Your task to perform on an android device: Go to Google Image 0: 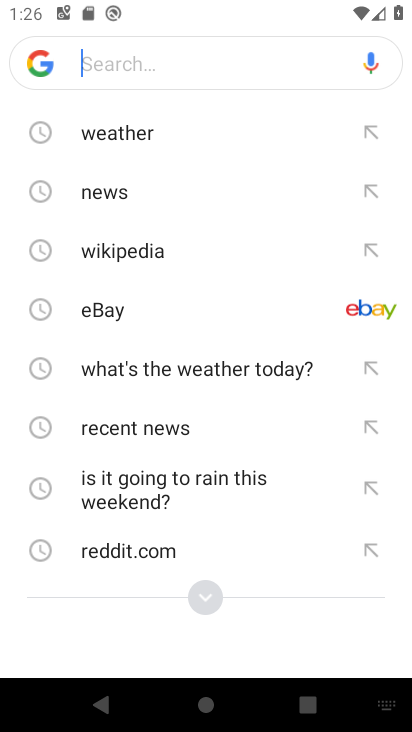
Step 0: press back button
Your task to perform on an android device: Go to Google Image 1: 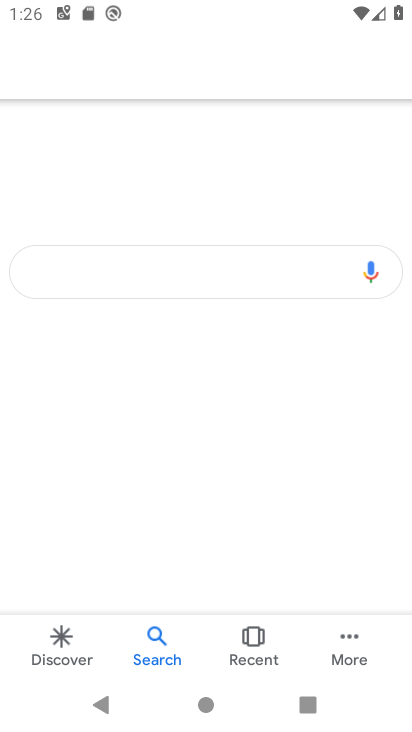
Step 1: press back button
Your task to perform on an android device: Go to Google Image 2: 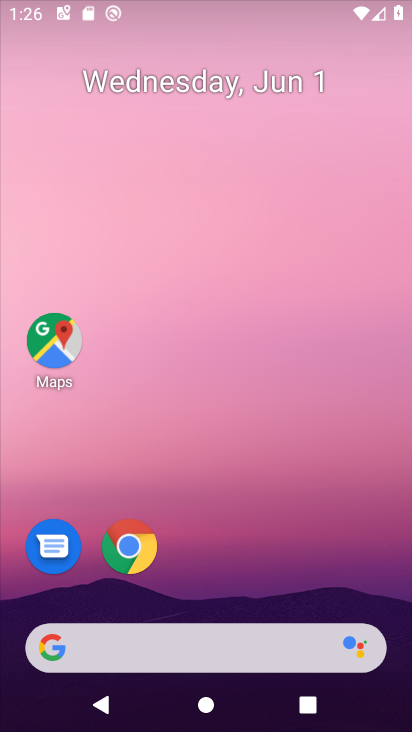
Step 2: drag from (163, 723) to (192, 111)
Your task to perform on an android device: Go to Google Image 3: 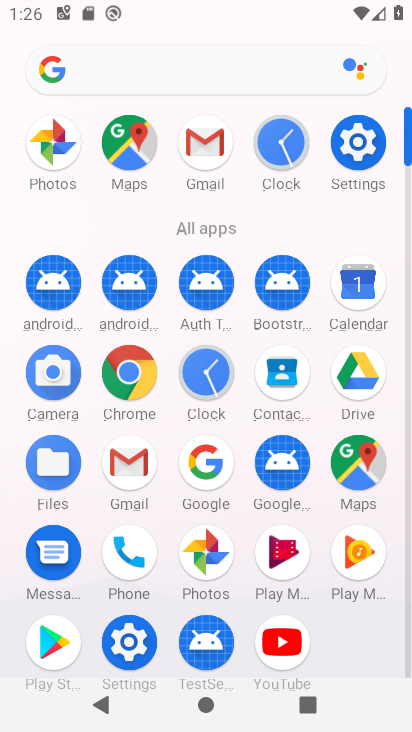
Step 3: click (195, 473)
Your task to perform on an android device: Go to Google Image 4: 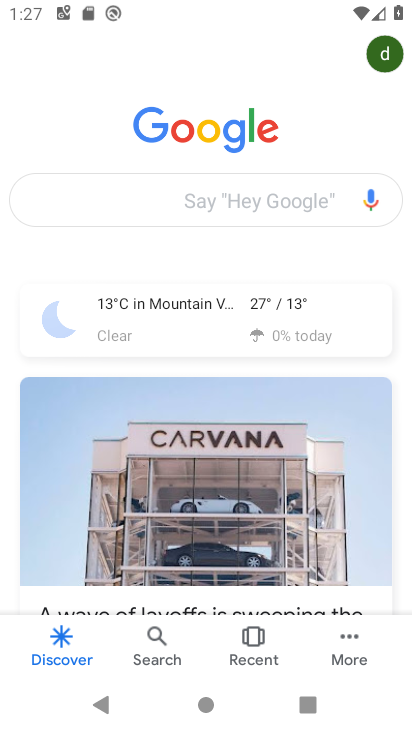
Step 4: task complete